Your task to perform on an android device: toggle show notifications on the lock screen Image 0: 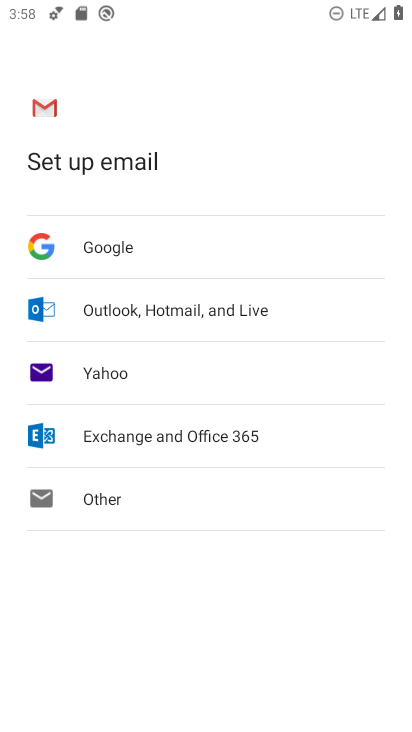
Step 0: press home button
Your task to perform on an android device: toggle show notifications on the lock screen Image 1: 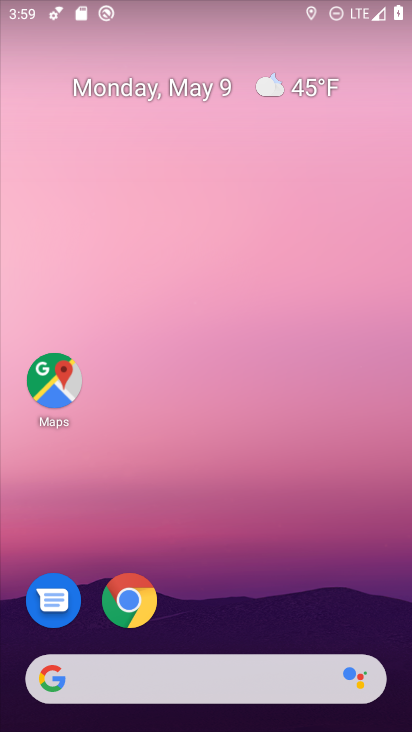
Step 1: drag from (258, 622) to (316, 49)
Your task to perform on an android device: toggle show notifications on the lock screen Image 2: 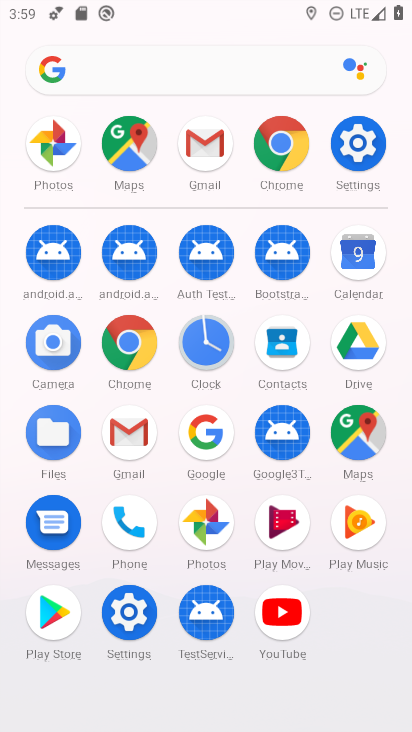
Step 2: click (143, 612)
Your task to perform on an android device: toggle show notifications on the lock screen Image 3: 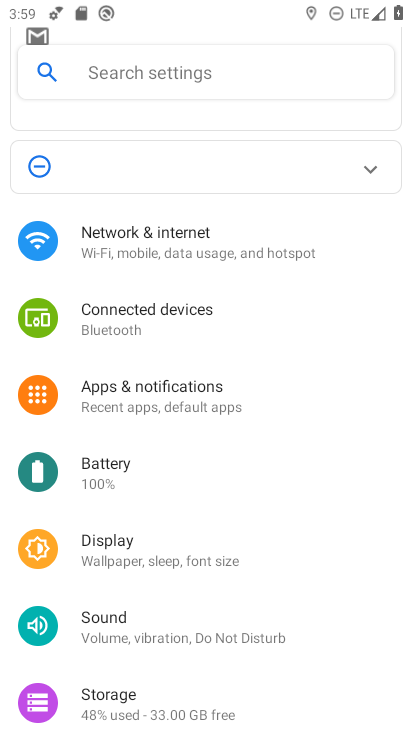
Step 3: click (129, 378)
Your task to perform on an android device: toggle show notifications on the lock screen Image 4: 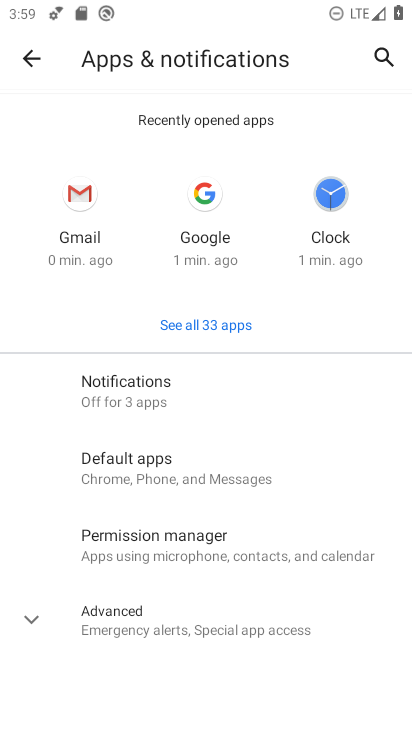
Step 4: click (132, 390)
Your task to perform on an android device: toggle show notifications on the lock screen Image 5: 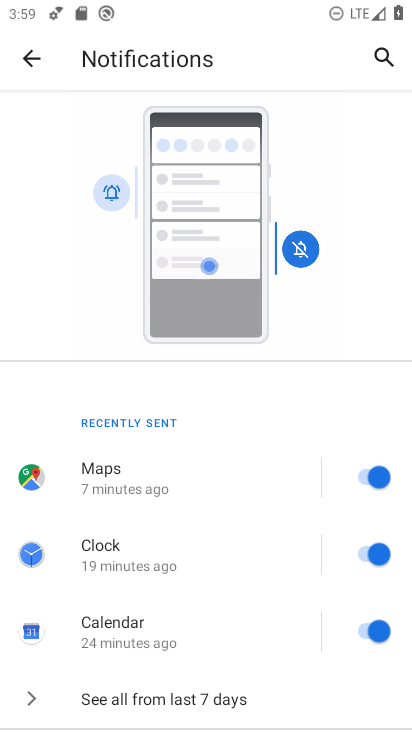
Step 5: drag from (187, 657) to (289, 213)
Your task to perform on an android device: toggle show notifications on the lock screen Image 6: 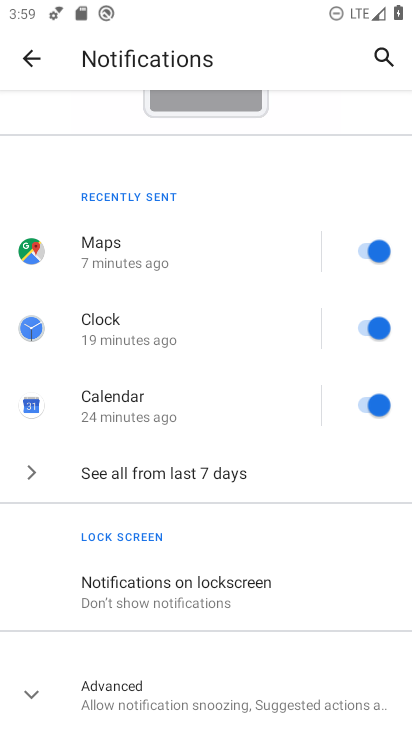
Step 6: drag from (216, 640) to (229, 265)
Your task to perform on an android device: toggle show notifications on the lock screen Image 7: 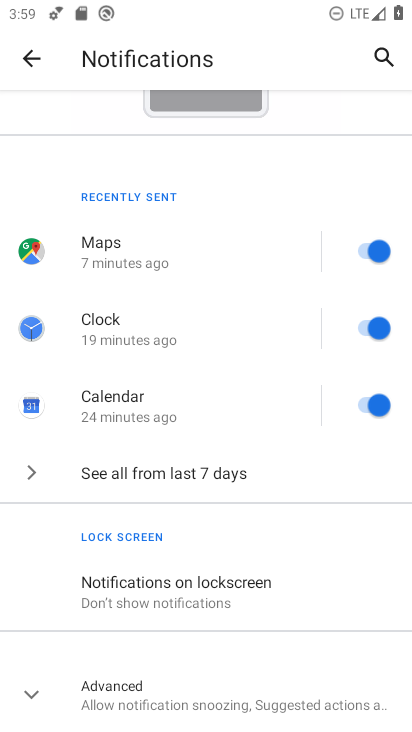
Step 7: click (173, 587)
Your task to perform on an android device: toggle show notifications on the lock screen Image 8: 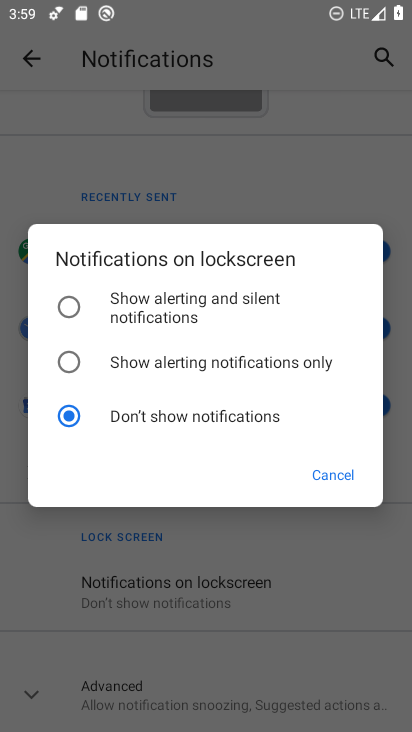
Step 8: click (112, 297)
Your task to perform on an android device: toggle show notifications on the lock screen Image 9: 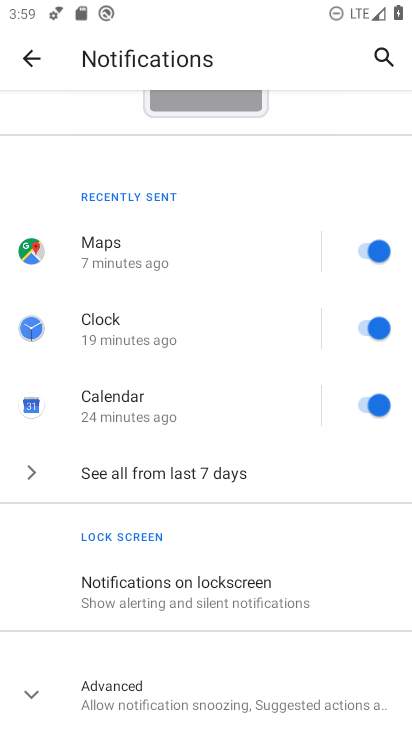
Step 9: task complete